Your task to perform on an android device: all mails in gmail Image 0: 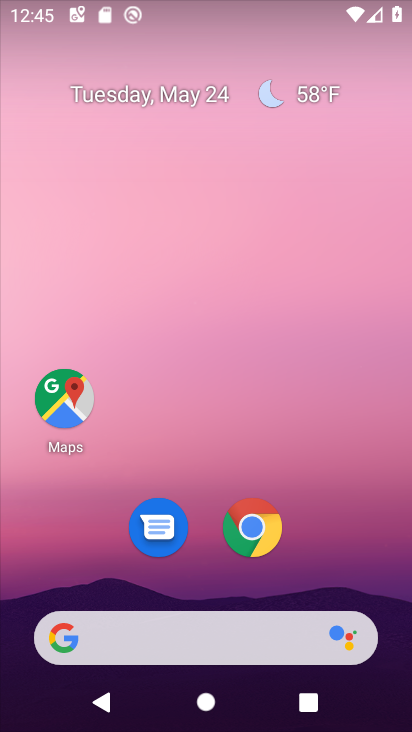
Step 0: drag from (388, 603) to (267, 219)
Your task to perform on an android device: all mails in gmail Image 1: 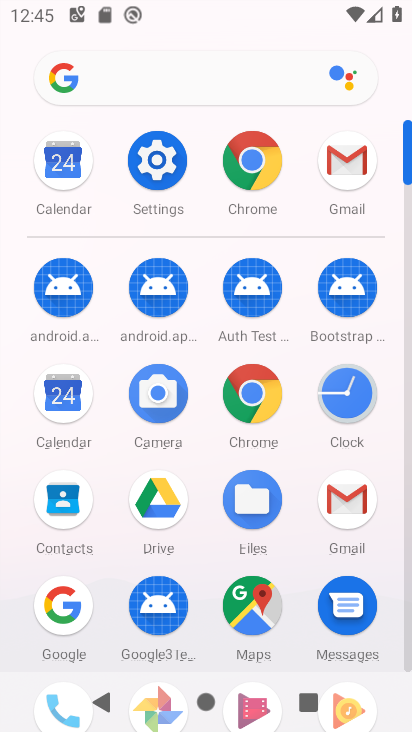
Step 1: click (333, 176)
Your task to perform on an android device: all mails in gmail Image 2: 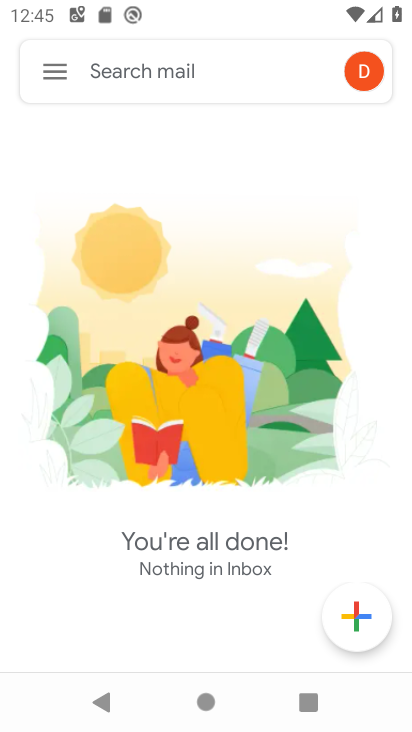
Step 2: click (53, 80)
Your task to perform on an android device: all mails in gmail Image 3: 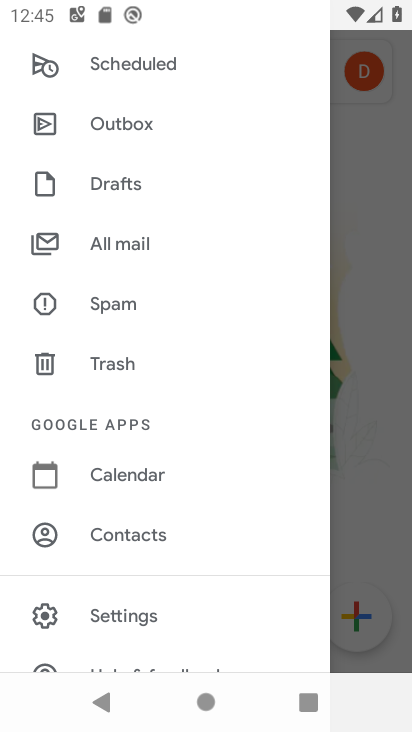
Step 3: click (154, 241)
Your task to perform on an android device: all mails in gmail Image 4: 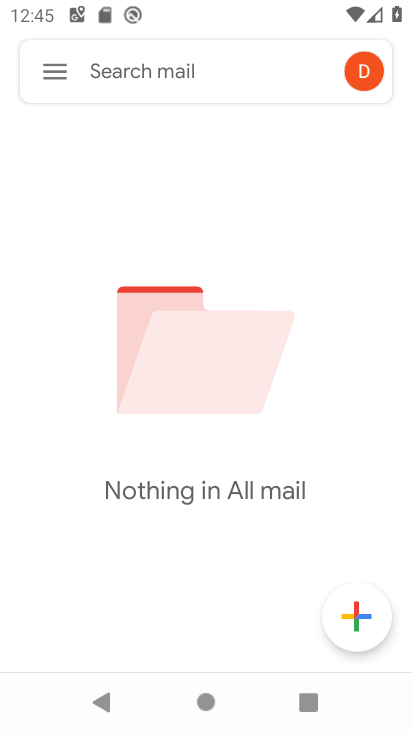
Step 4: task complete